Your task to perform on an android device: turn off wifi Image 0: 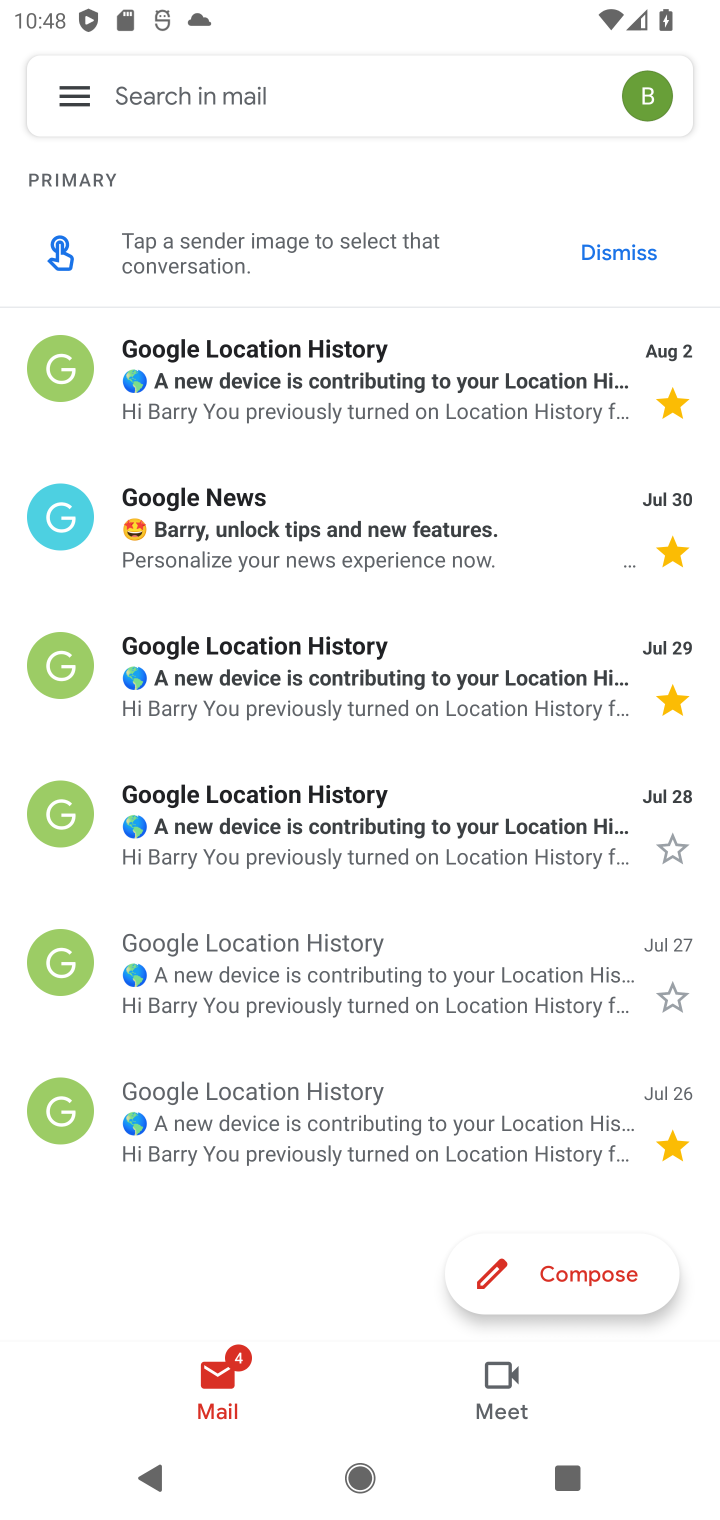
Step 0: press home button
Your task to perform on an android device: turn off wifi Image 1: 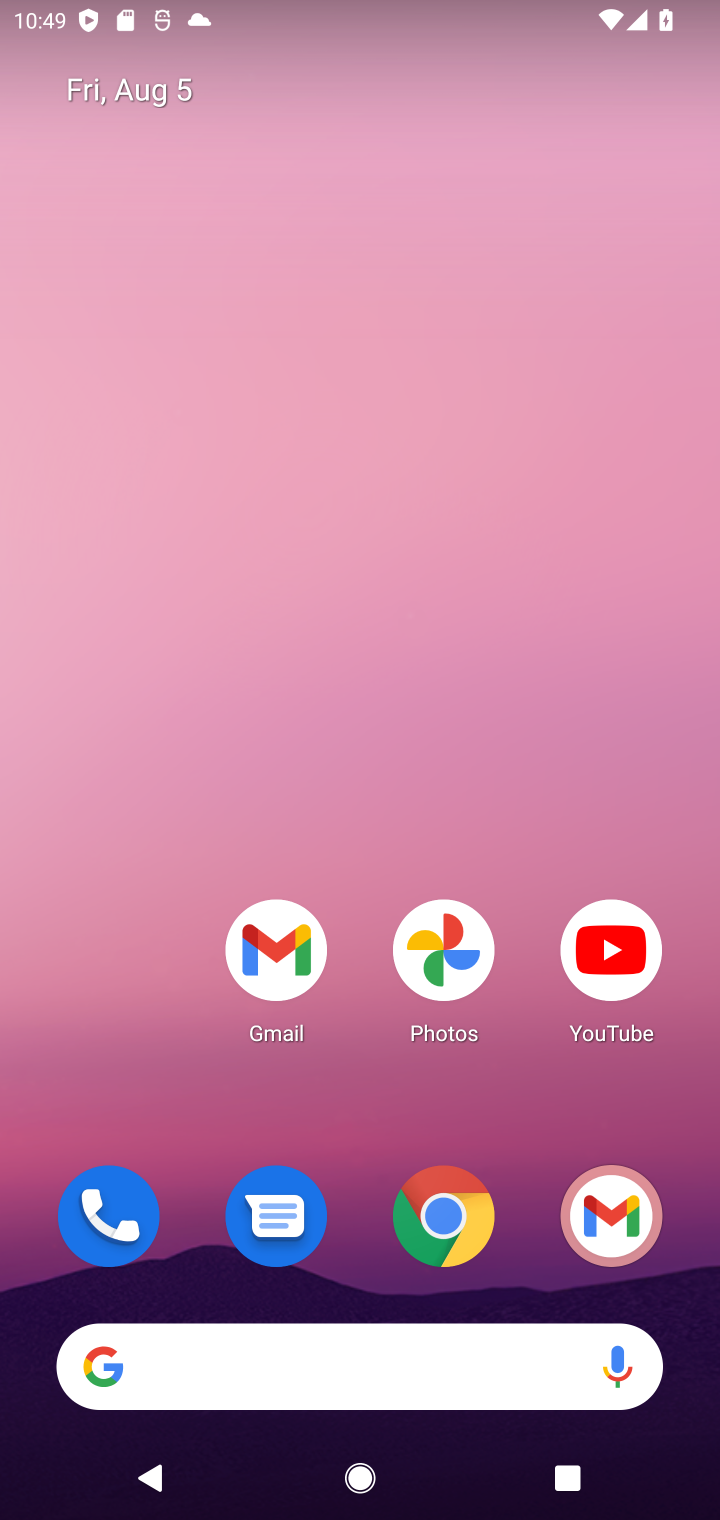
Step 1: drag from (389, 1355) to (278, 219)
Your task to perform on an android device: turn off wifi Image 2: 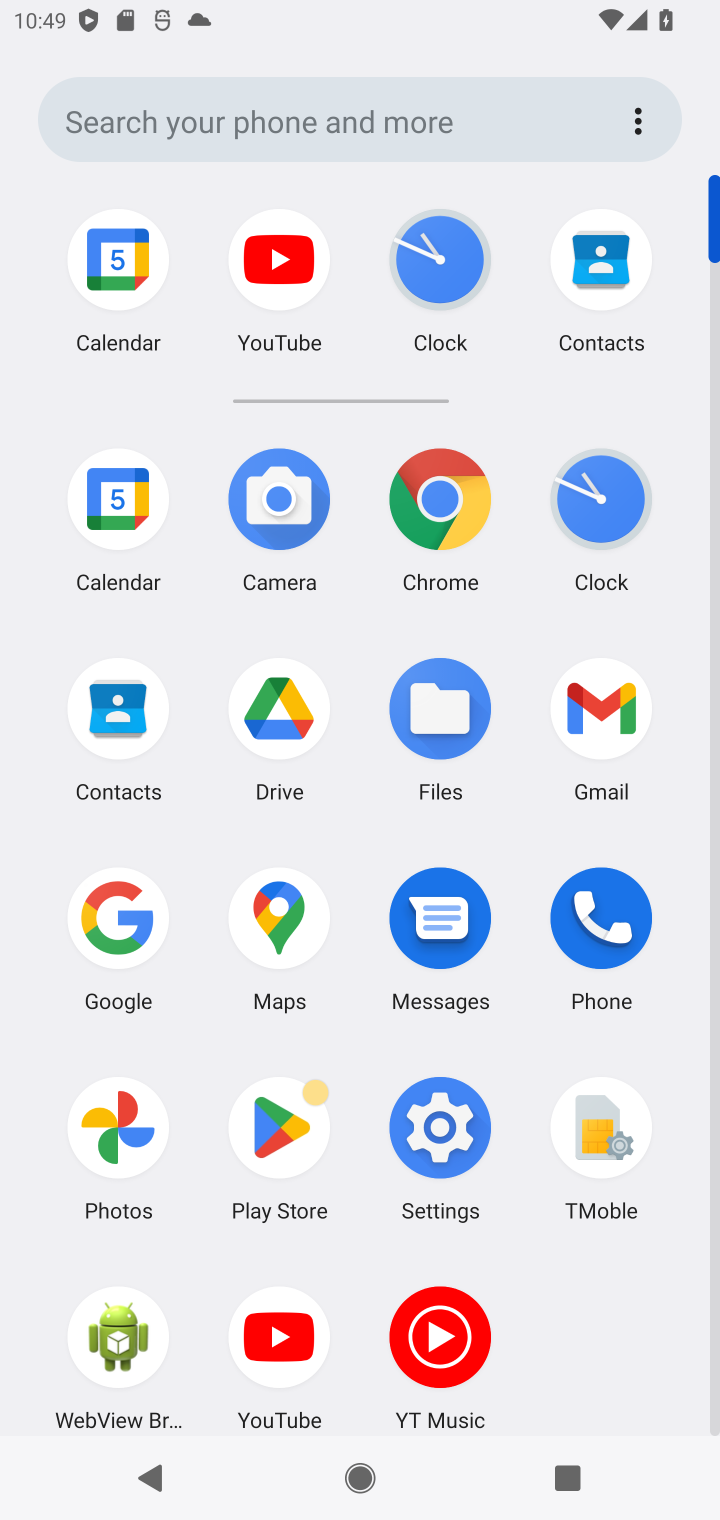
Step 2: click (420, 1128)
Your task to perform on an android device: turn off wifi Image 3: 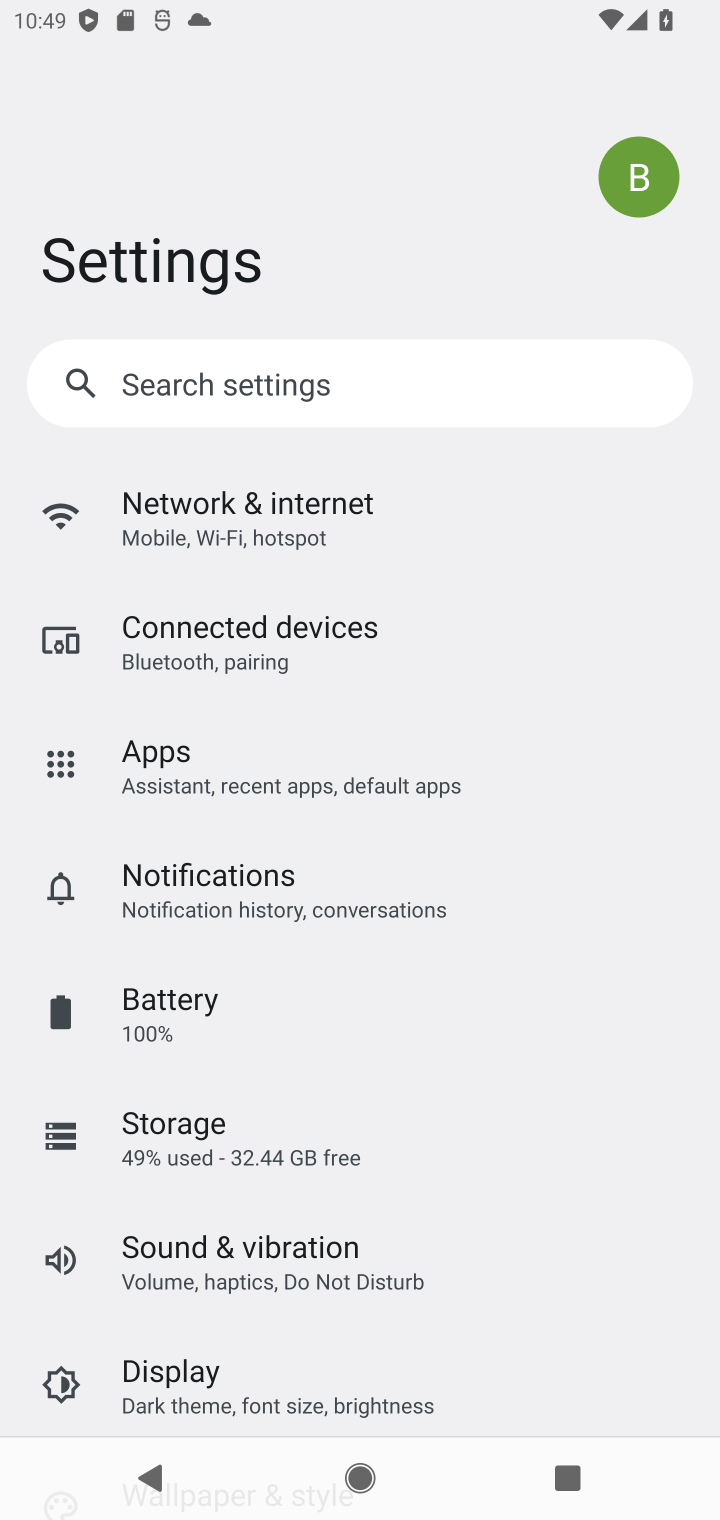
Step 3: click (364, 536)
Your task to perform on an android device: turn off wifi Image 4: 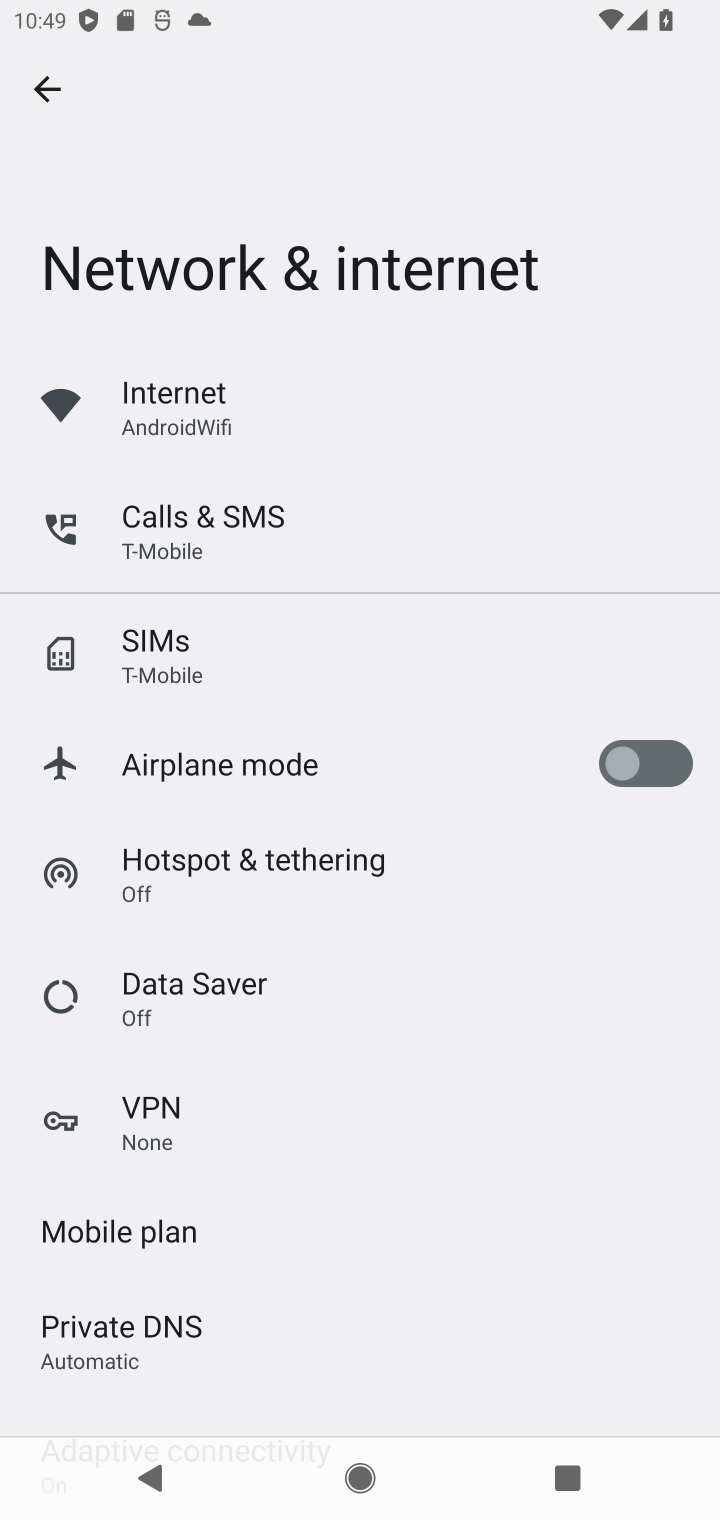
Step 4: click (321, 440)
Your task to perform on an android device: turn off wifi Image 5: 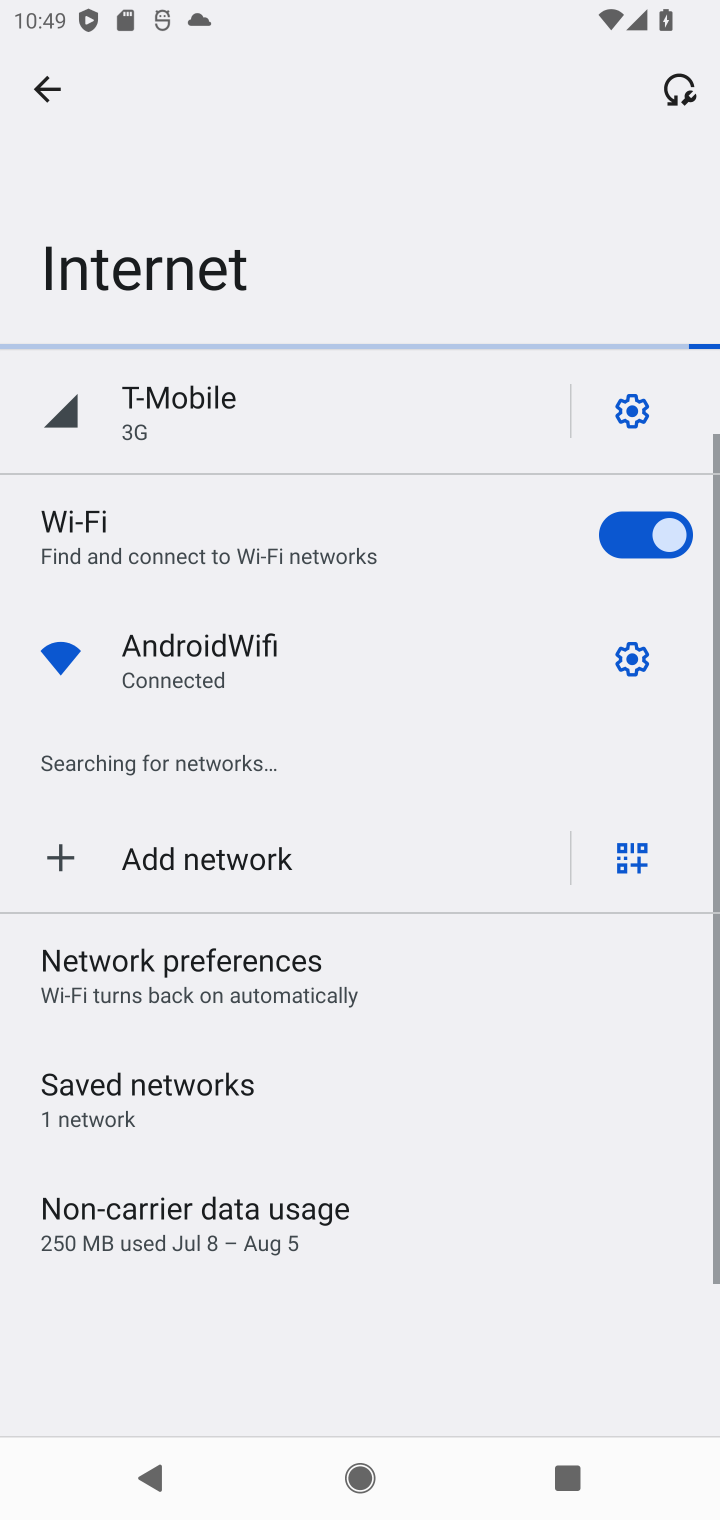
Step 5: click (628, 530)
Your task to perform on an android device: turn off wifi Image 6: 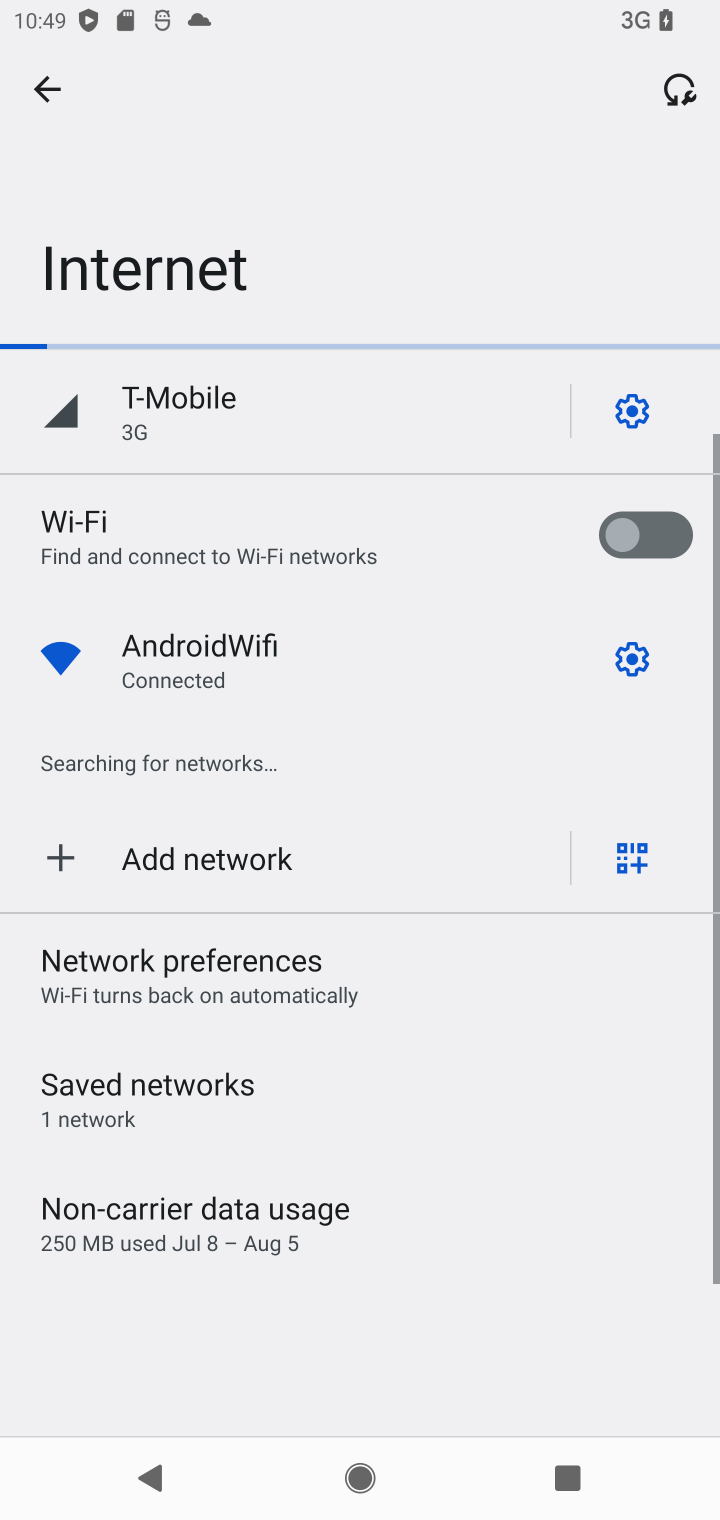
Step 6: task complete